Your task to perform on an android device: turn smart compose on in the gmail app Image 0: 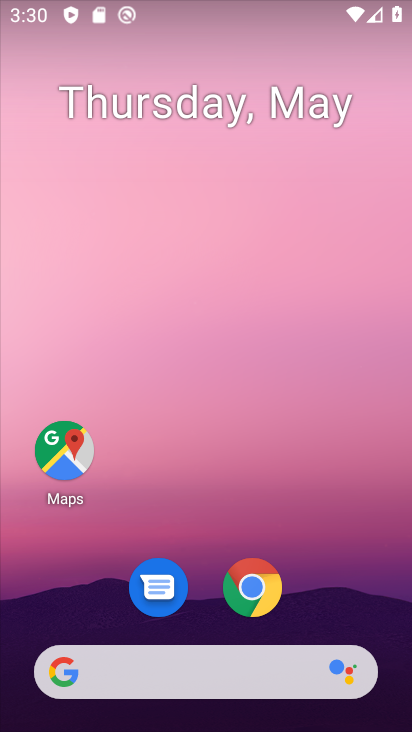
Step 0: drag from (375, 614) to (382, 230)
Your task to perform on an android device: turn smart compose on in the gmail app Image 1: 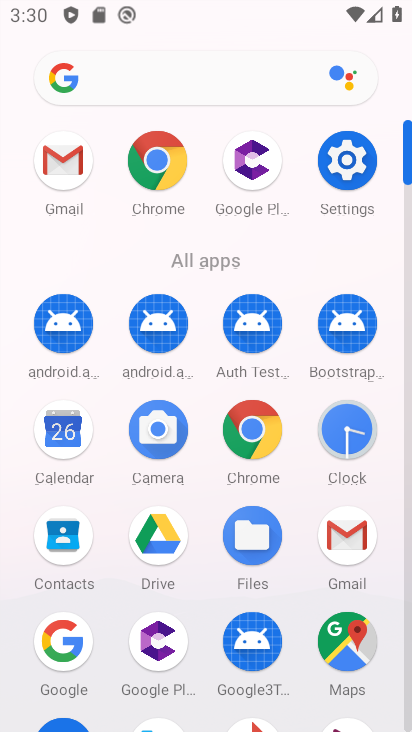
Step 1: click (362, 534)
Your task to perform on an android device: turn smart compose on in the gmail app Image 2: 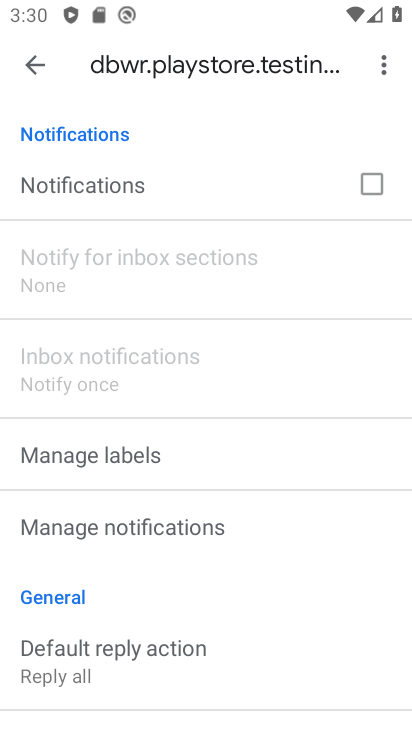
Step 2: task complete